Your task to perform on an android device: Open maps Image 0: 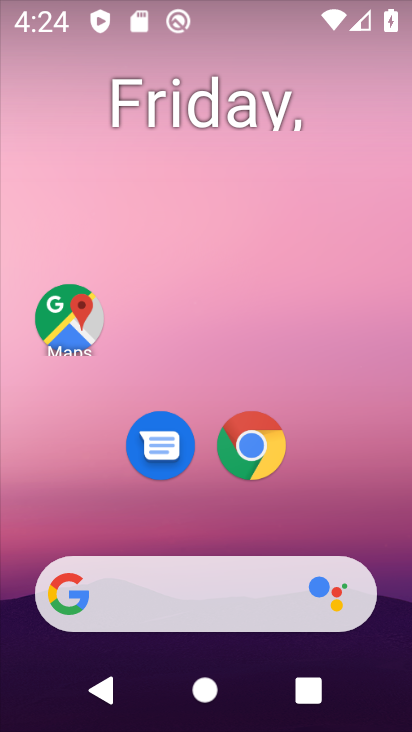
Step 0: click (83, 311)
Your task to perform on an android device: Open maps Image 1: 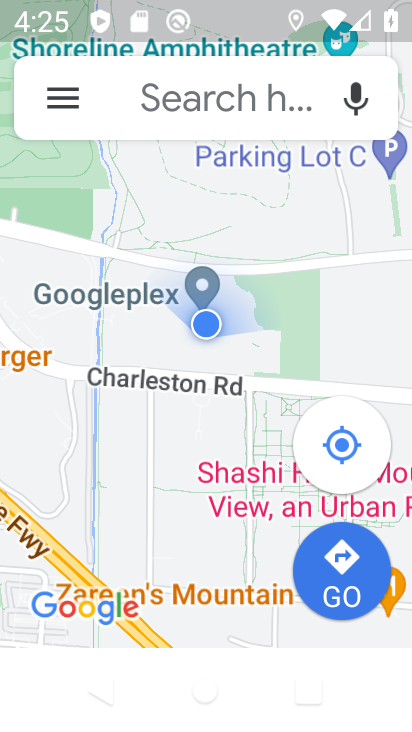
Step 1: task complete